Your task to perform on an android device: search for accent chairs on article.com Image 0: 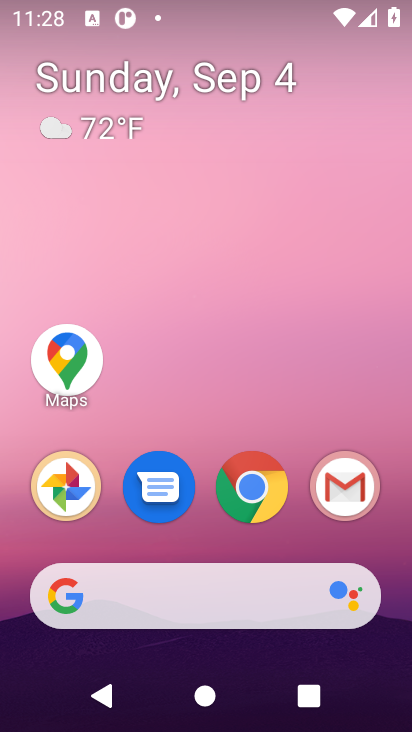
Step 0: click (238, 489)
Your task to perform on an android device: search for accent chairs on article.com Image 1: 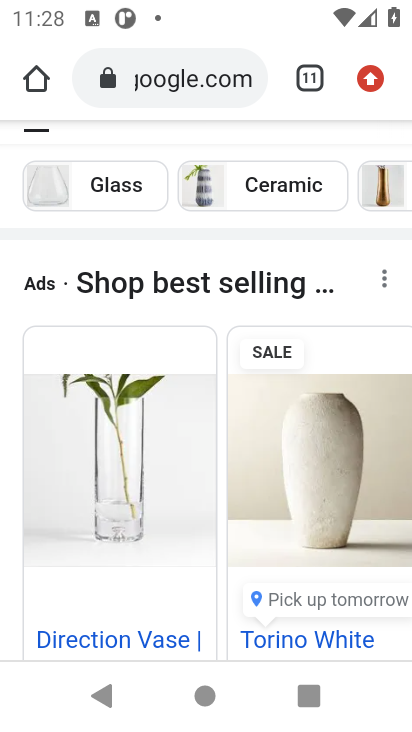
Step 1: click (233, 67)
Your task to perform on an android device: search for accent chairs on article.com Image 2: 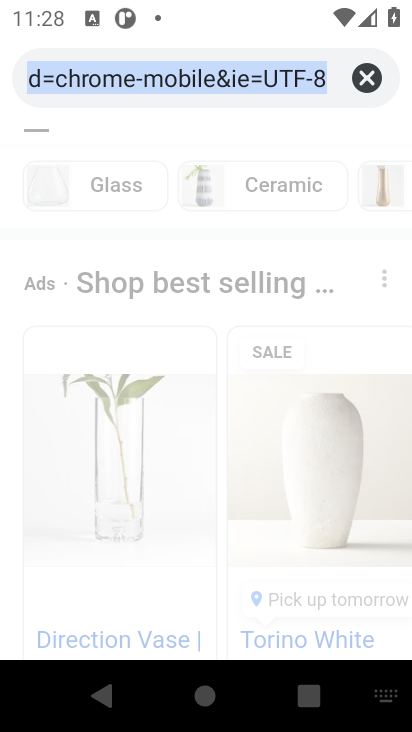
Step 2: click (371, 89)
Your task to perform on an android device: search for accent chairs on article.com Image 3: 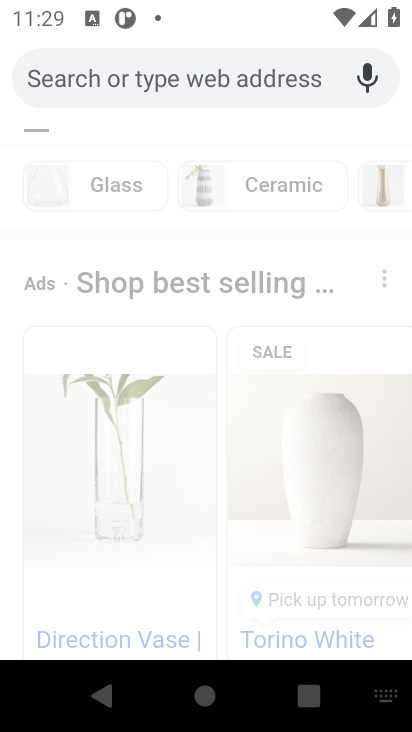
Step 3: type " accent chairs on article.com"
Your task to perform on an android device: search for accent chairs on article.com Image 4: 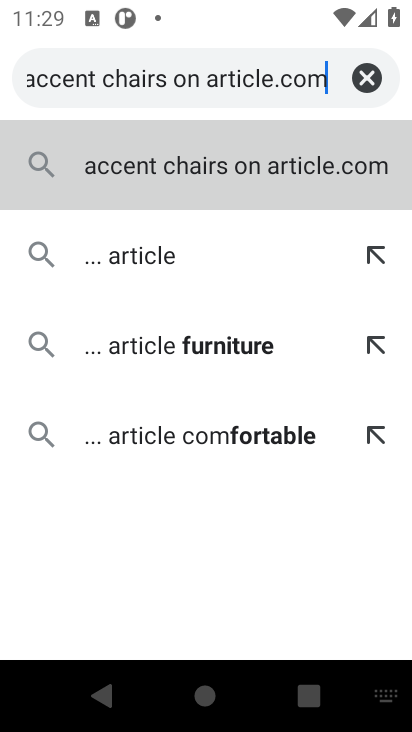
Step 4: click (367, 175)
Your task to perform on an android device: search for accent chairs on article.com Image 5: 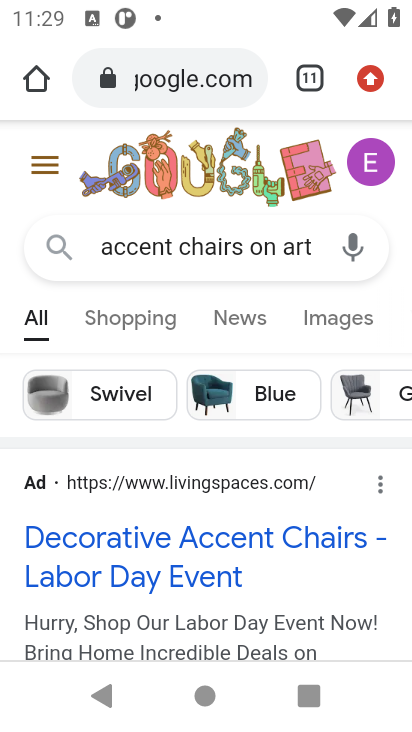
Step 5: drag from (205, 604) to (298, 153)
Your task to perform on an android device: search for accent chairs on article.com Image 6: 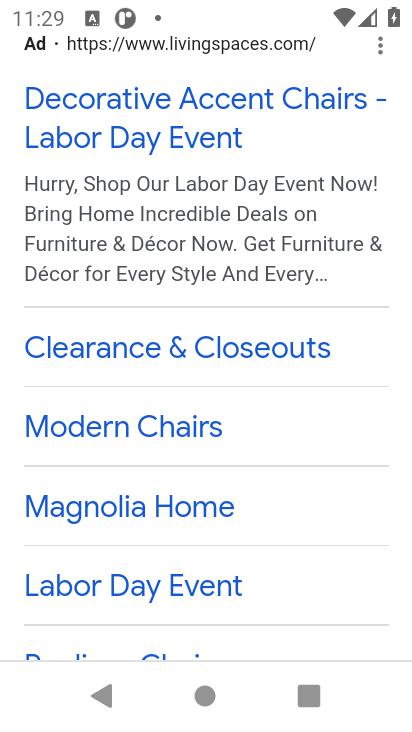
Step 6: drag from (152, 630) to (277, 150)
Your task to perform on an android device: search for accent chairs on article.com Image 7: 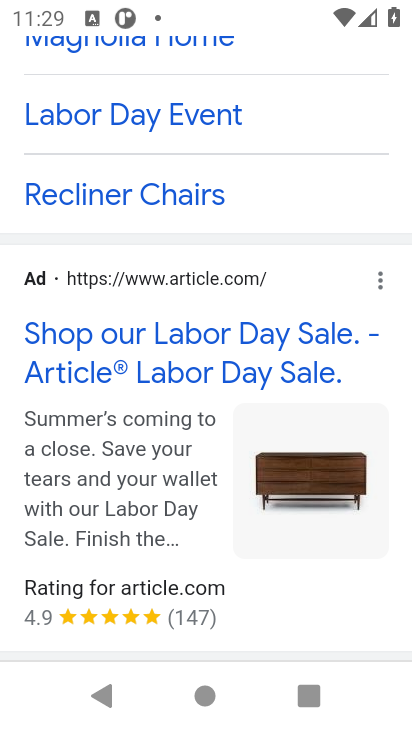
Step 7: click (171, 348)
Your task to perform on an android device: search for accent chairs on article.com Image 8: 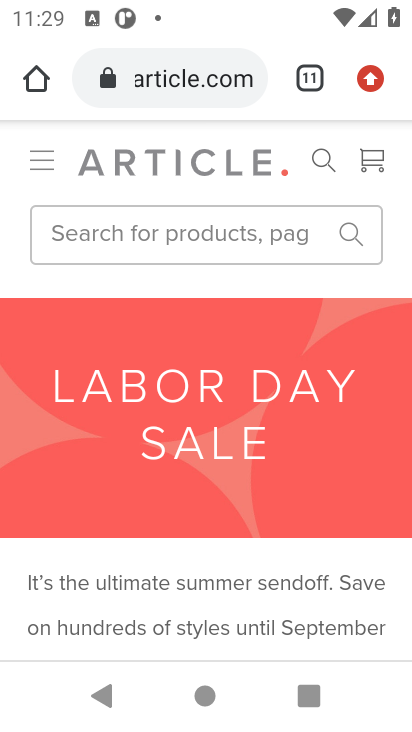
Step 8: click (156, 253)
Your task to perform on an android device: search for accent chairs on article.com Image 9: 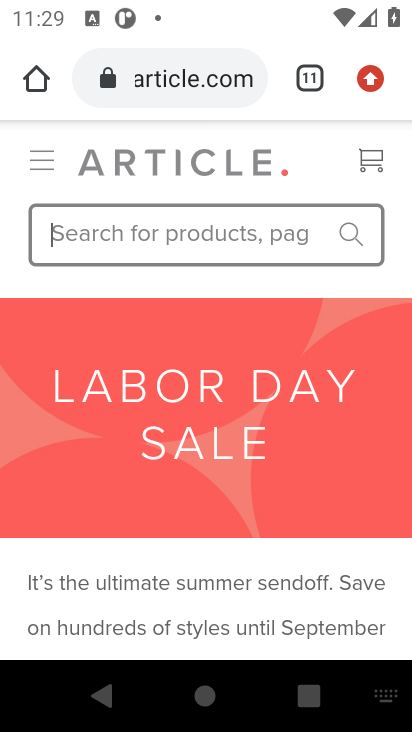
Step 9: type " accent chairs "
Your task to perform on an android device: search for accent chairs on article.com Image 10: 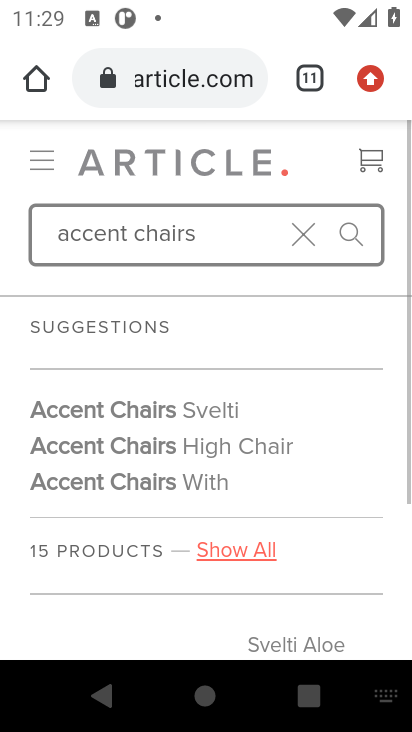
Step 10: click (356, 215)
Your task to perform on an android device: search for accent chairs on article.com Image 11: 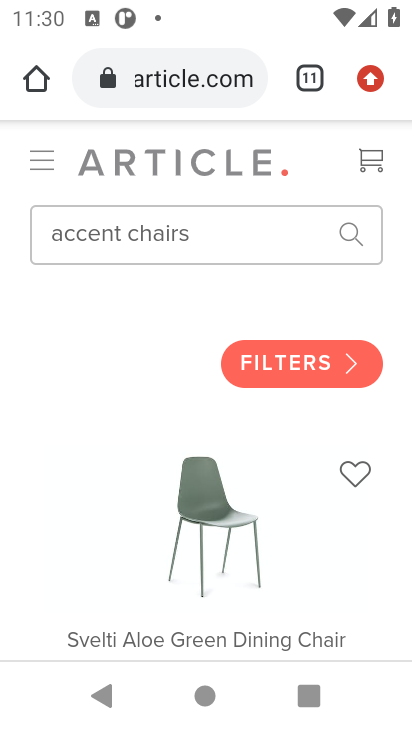
Step 11: task complete